Your task to perform on an android device: clear all cookies in the chrome app Image 0: 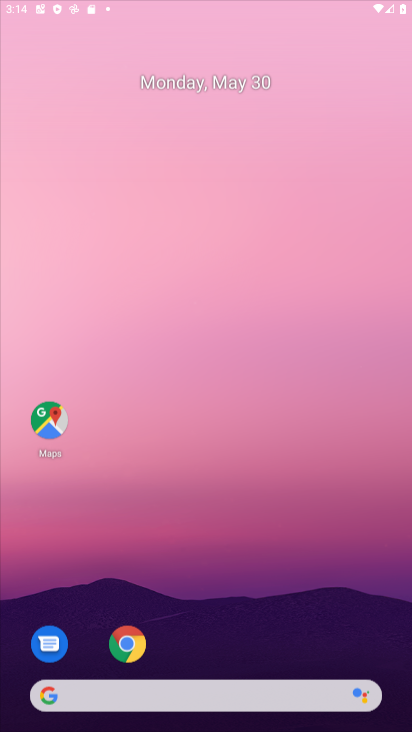
Step 0: click (120, 643)
Your task to perform on an android device: clear all cookies in the chrome app Image 1: 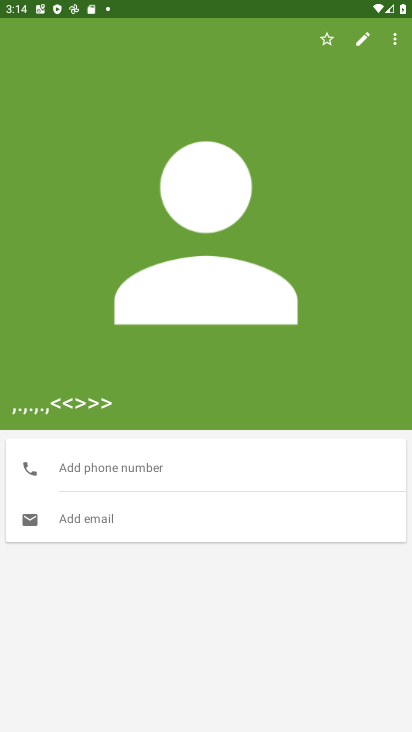
Step 1: press home button
Your task to perform on an android device: clear all cookies in the chrome app Image 2: 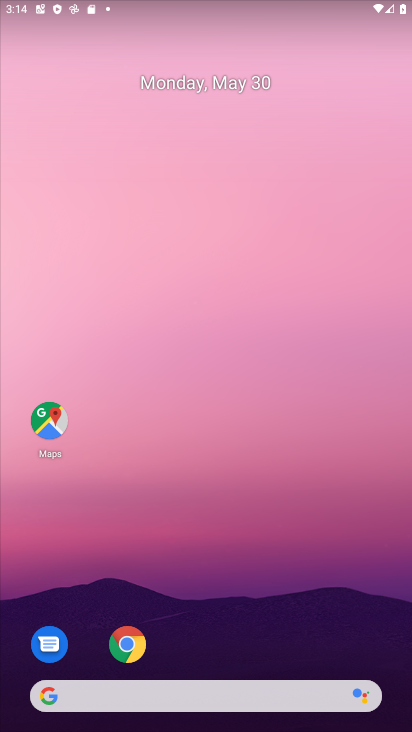
Step 2: click (250, 652)
Your task to perform on an android device: clear all cookies in the chrome app Image 3: 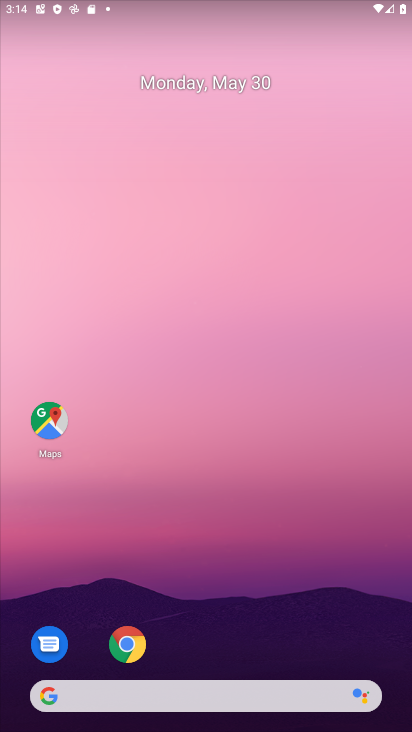
Step 3: click (133, 649)
Your task to perform on an android device: clear all cookies in the chrome app Image 4: 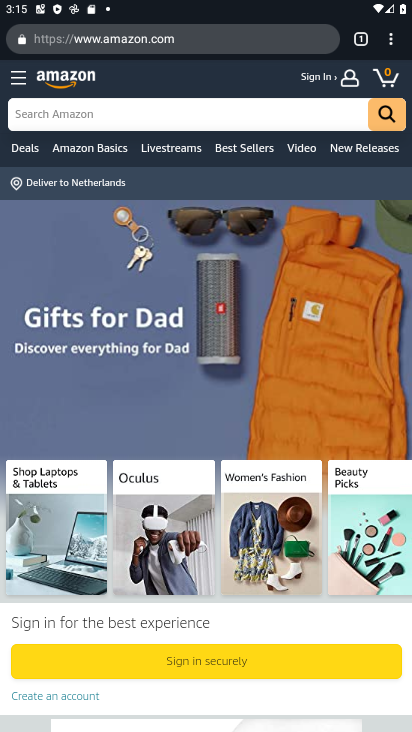
Step 4: click (392, 43)
Your task to perform on an android device: clear all cookies in the chrome app Image 5: 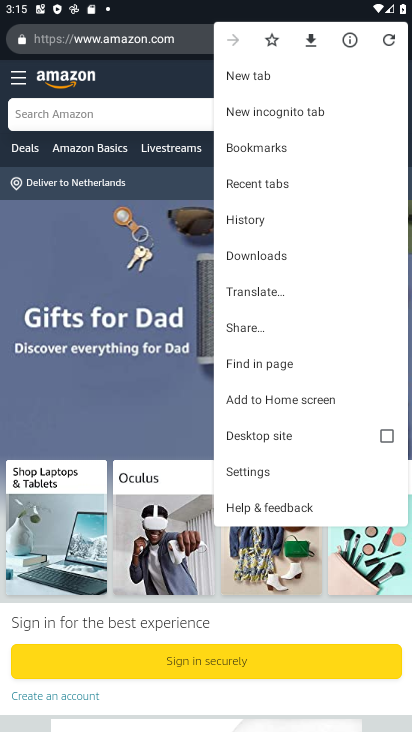
Step 5: click (262, 472)
Your task to perform on an android device: clear all cookies in the chrome app Image 6: 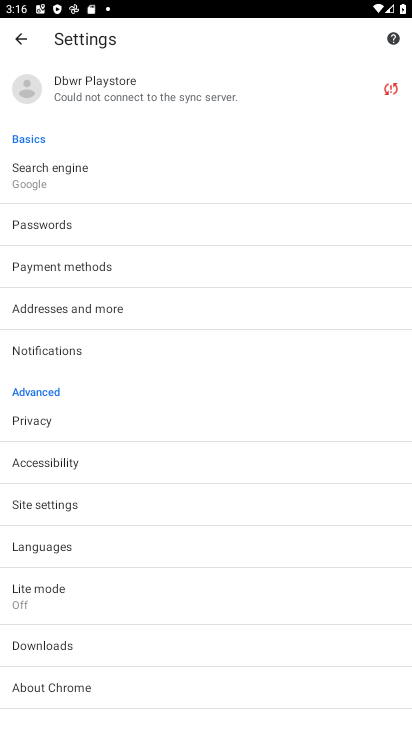
Step 6: task complete